Your task to perform on an android device: turn off wifi Image 0: 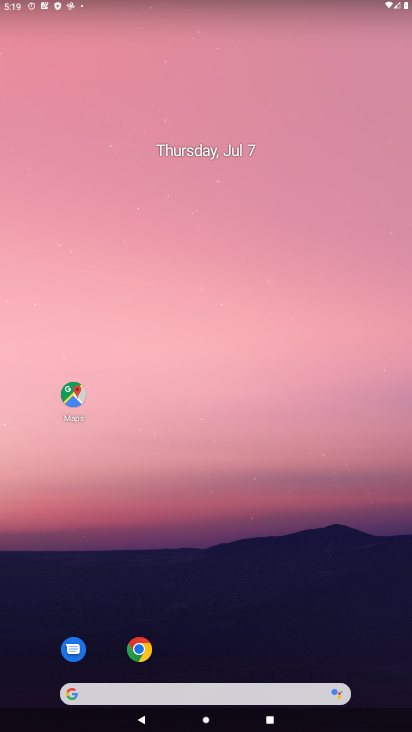
Step 0: drag from (228, 0) to (308, 569)
Your task to perform on an android device: turn off wifi Image 1: 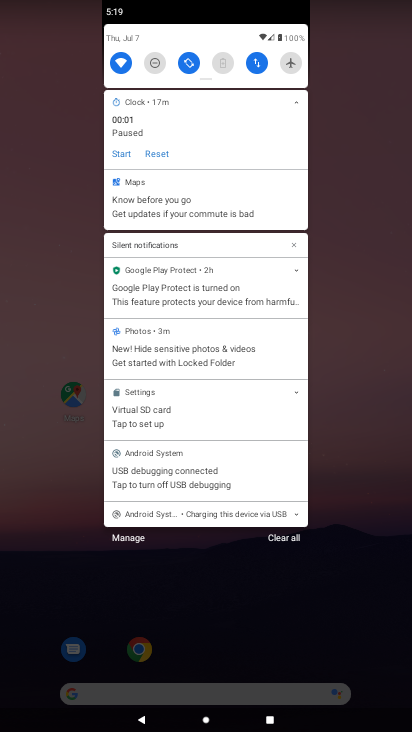
Step 1: task complete